Your task to perform on an android device: move a message to another label in the gmail app Image 0: 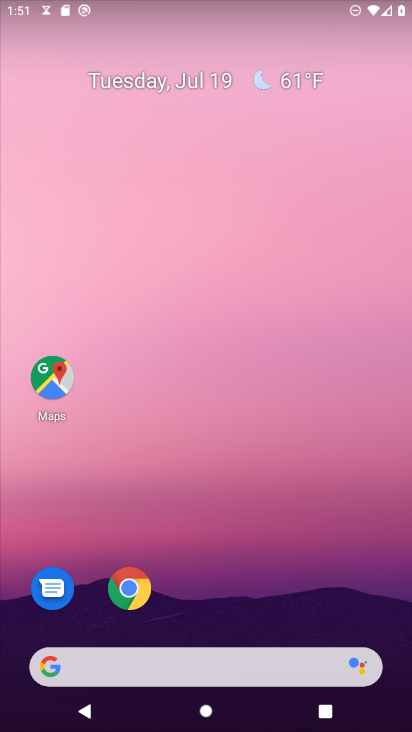
Step 0: drag from (316, 678) to (187, 214)
Your task to perform on an android device: move a message to another label in the gmail app Image 1: 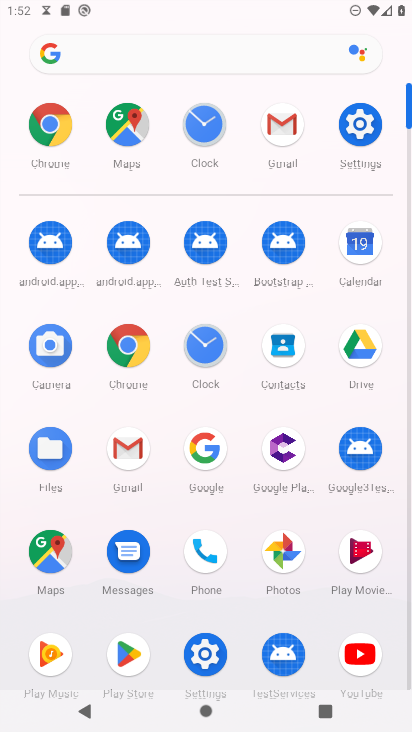
Step 1: click (269, 139)
Your task to perform on an android device: move a message to another label in the gmail app Image 2: 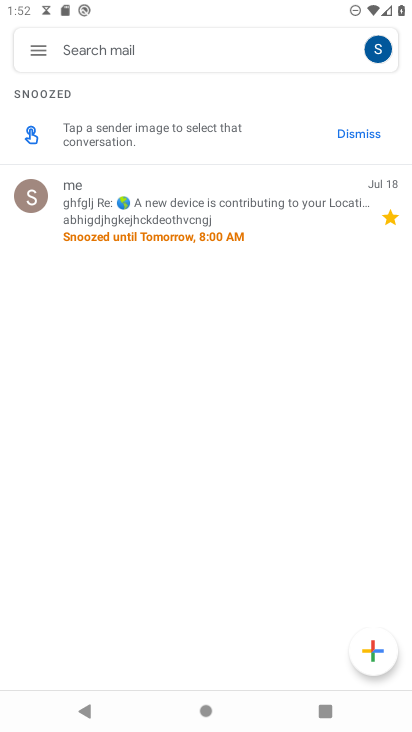
Step 2: click (34, 62)
Your task to perform on an android device: move a message to another label in the gmail app Image 3: 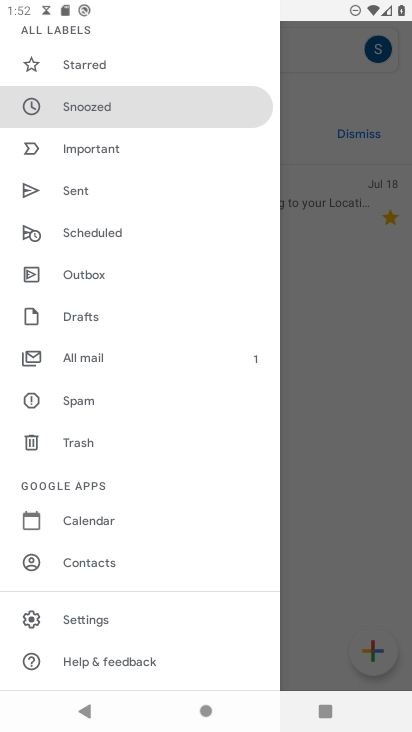
Step 3: click (87, 622)
Your task to perform on an android device: move a message to another label in the gmail app Image 4: 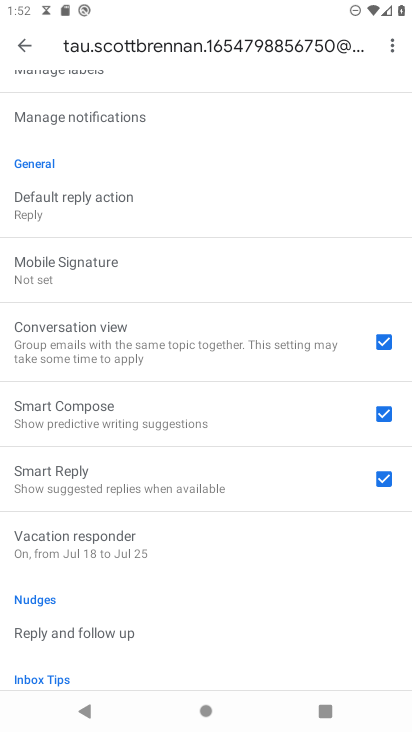
Step 4: drag from (119, 178) to (128, 372)
Your task to perform on an android device: move a message to another label in the gmail app Image 5: 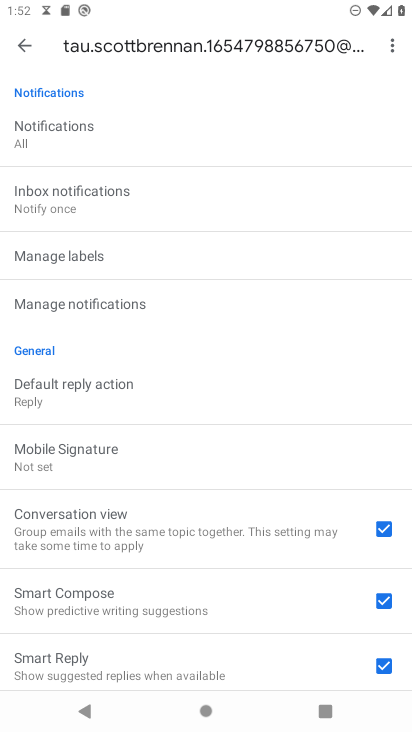
Step 5: click (84, 262)
Your task to perform on an android device: move a message to another label in the gmail app Image 6: 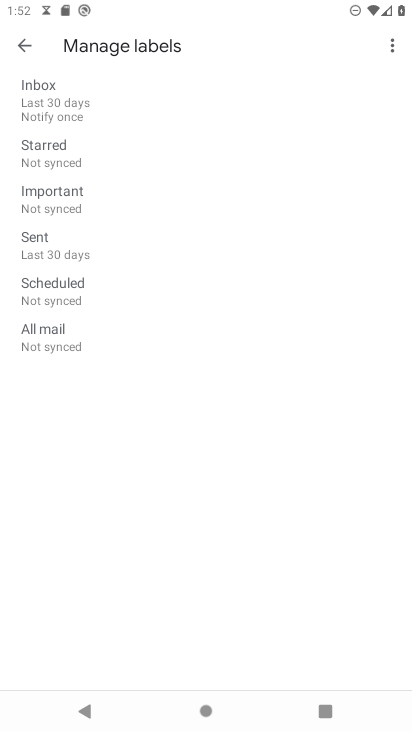
Step 6: click (92, 189)
Your task to perform on an android device: move a message to another label in the gmail app Image 7: 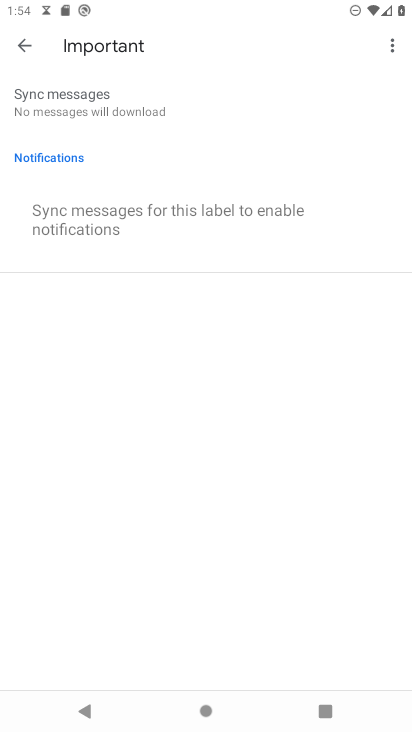
Step 7: task complete